Your task to perform on an android device: Open Yahoo.com Image 0: 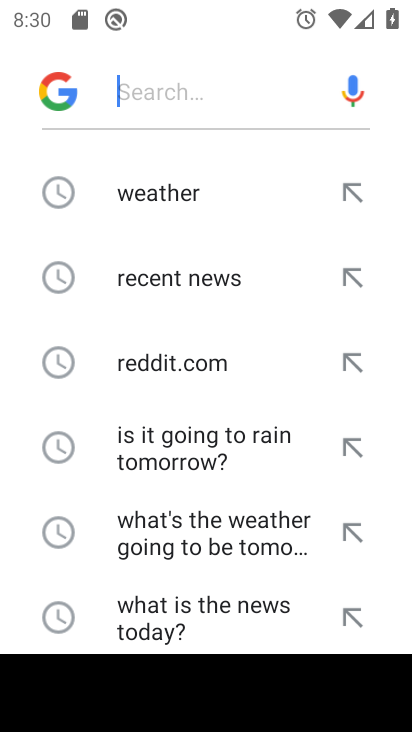
Step 0: press back button
Your task to perform on an android device: Open Yahoo.com Image 1: 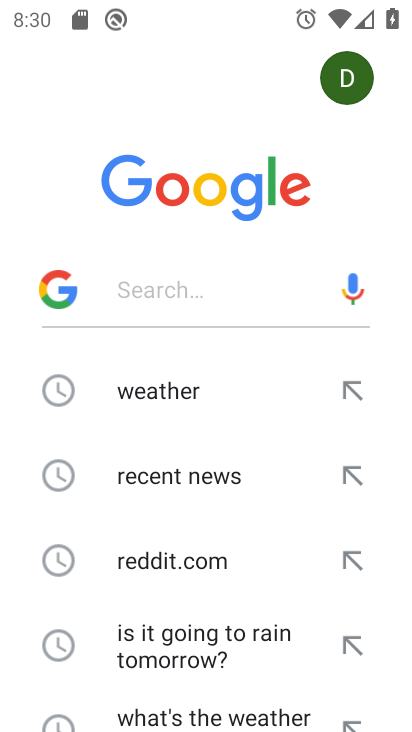
Step 1: press back button
Your task to perform on an android device: Open Yahoo.com Image 2: 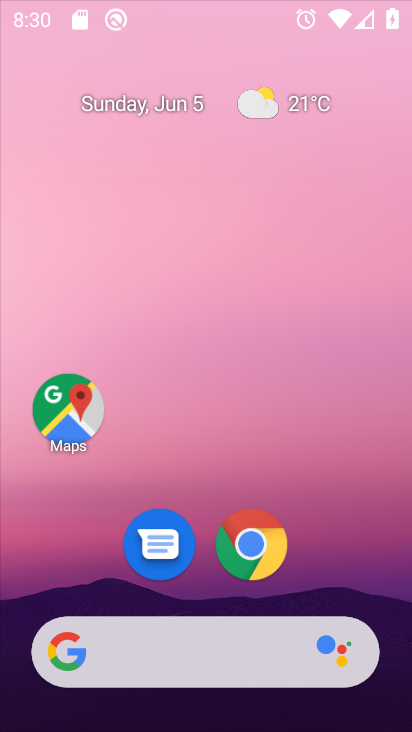
Step 2: press back button
Your task to perform on an android device: Open Yahoo.com Image 3: 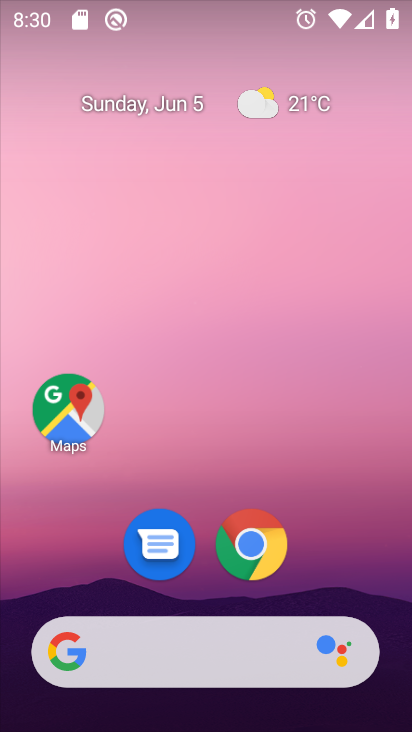
Step 3: press back button
Your task to perform on an android device: Open Yahoo.com Image 4: 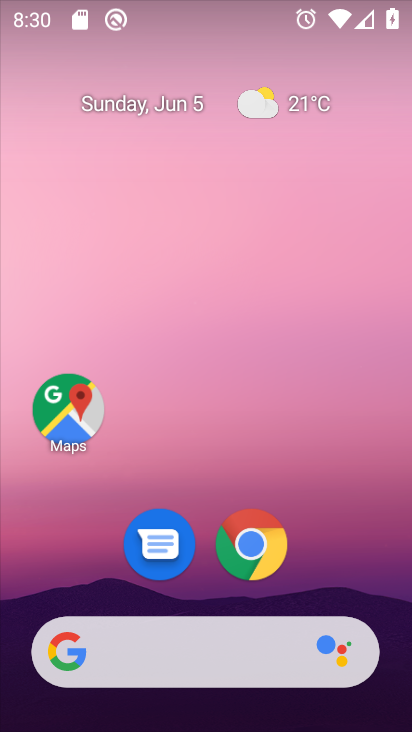
Step 4: click (259, 544)
Your task to perform on an android device: Open Yahoo.com Image 5: 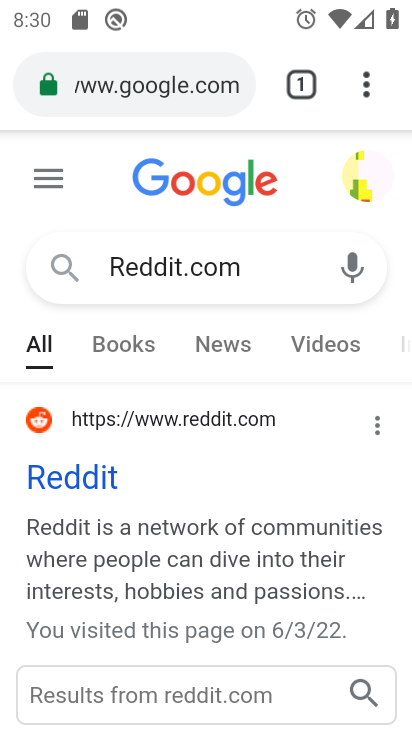
Step 5: click (233, 81)
Your task to perform on an android device: Open Yahoo.com Image 6: 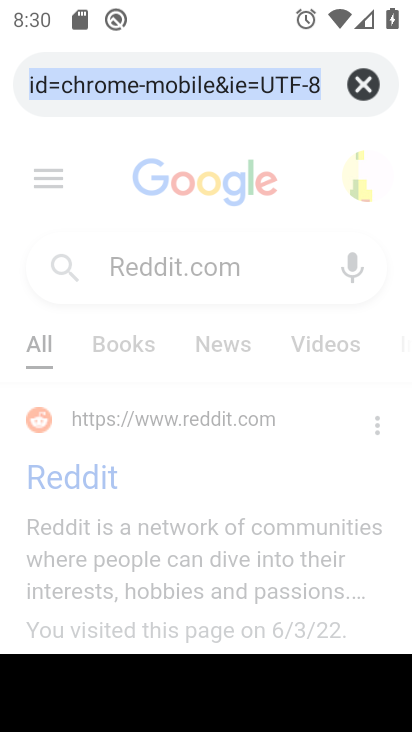
Step 6: click (366, 70)
Your task to perform on an android device: Open Yahoo.com Image 7: 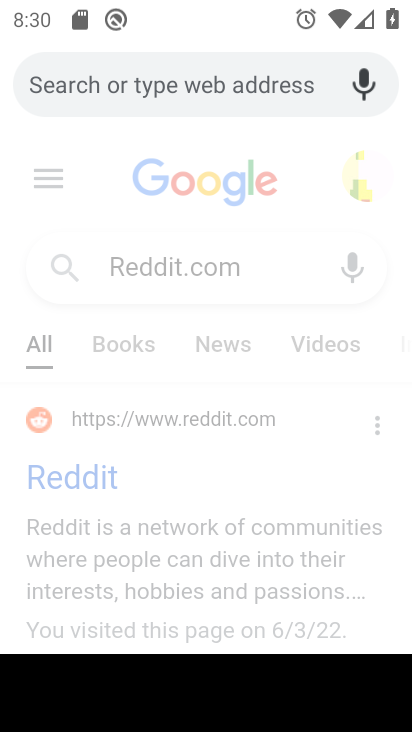
Step 7: type " Yahoo.com"
Your task to perform on an android device: Open Yahoo.com Image 8: 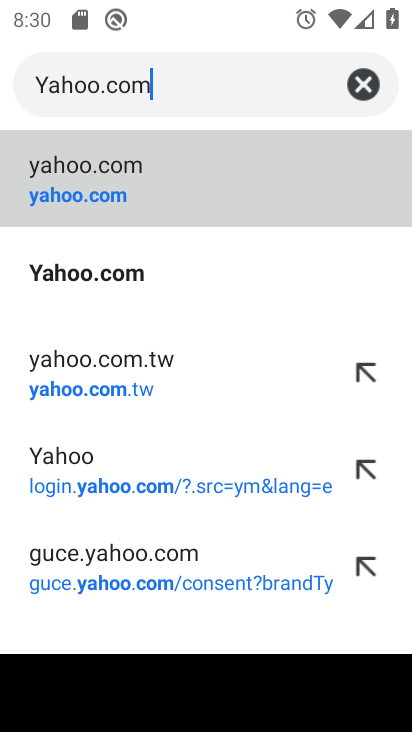
Step 8: click (96, 272)
Your task to perform on an android device: Open Yahoo.com Image 9: 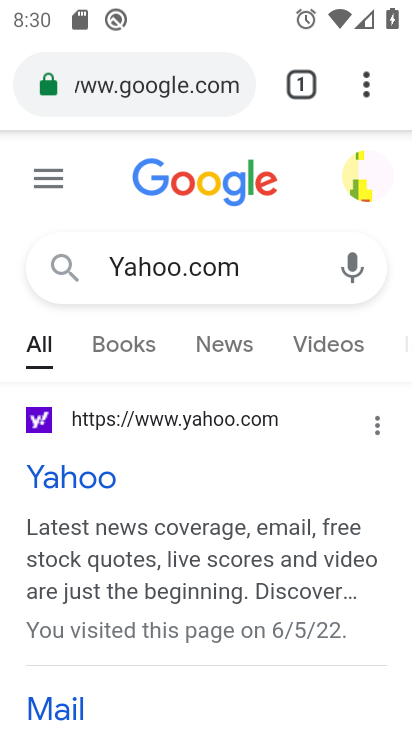
Step 9: task complete